Your task to perform on an android device: Open Chrome and go to the settings page Image 0: 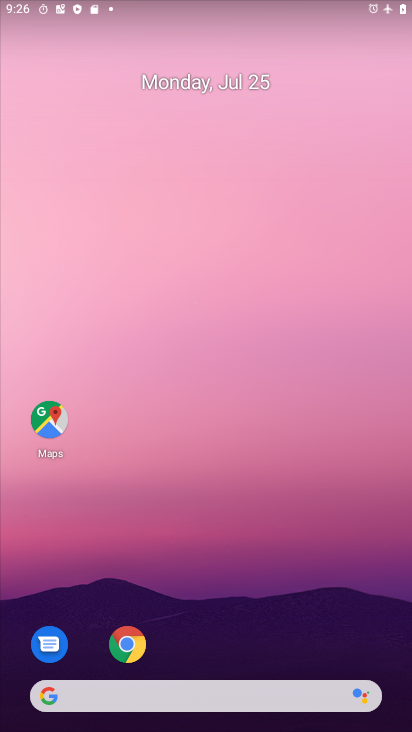
Step 0: drag from (229, 418) to (255, 94)
Your task to perform on an android device: Open Chrome and go to the settings page Image 1: 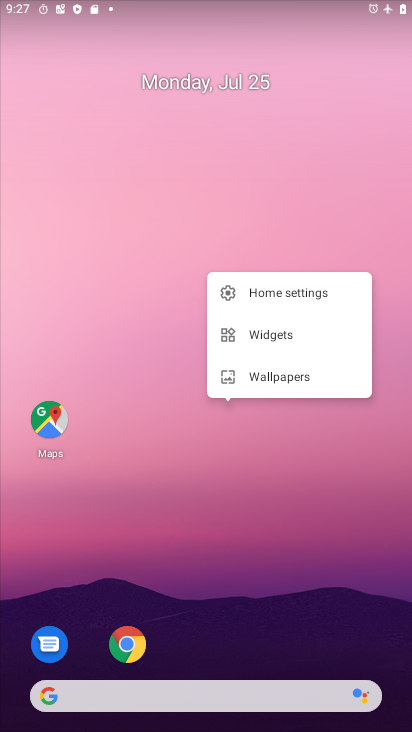
Step 1: drag from (220, 642) to (286, 29)
Your task to perform on an android device: Open Chrome and go to the settings page Image 2: 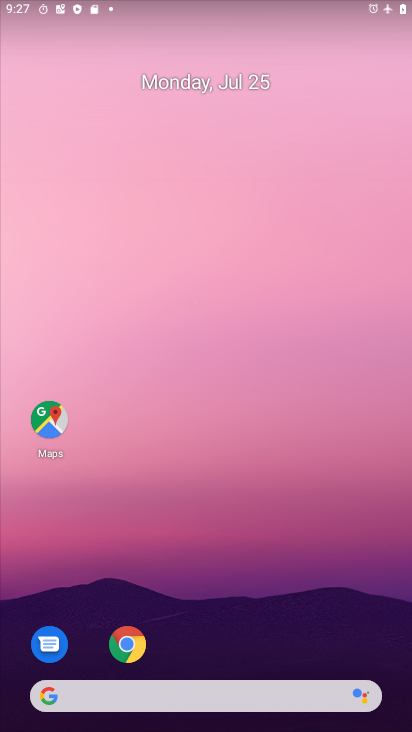
Step 2: drag from (153, 631) to (224, 20)
Your task to perform on an android device: Open Chrome and go to the settings page Image 3: 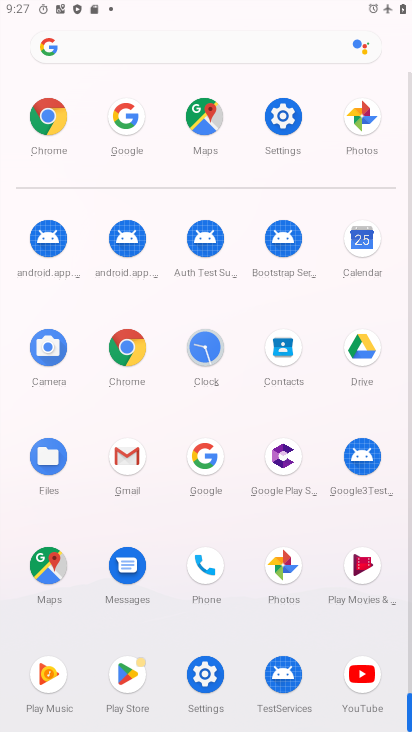
Step 3: click (130, 362)
Your task to perform on an android device: Open Chrome and go to the settings page Image 4: 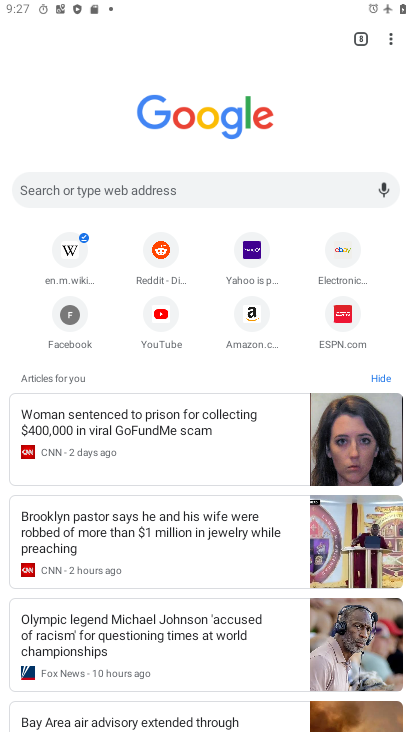
Step 4: click (395, 48)
Your task to perform on an android device: Open Chrome and go to the settings page Image 5: 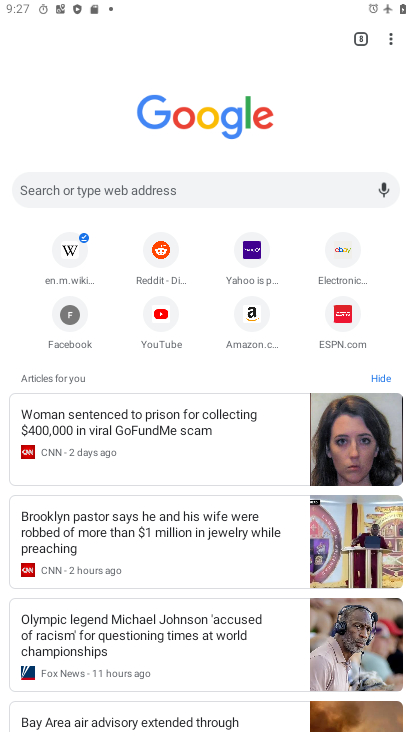
Step 5: click (387, 44)
Your task to perform on an android device: Open Chrome and go to the settings page Image 6: 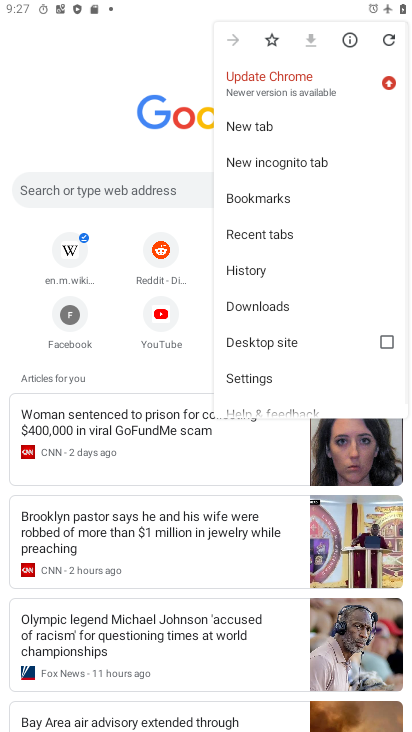
Step 6: click (241, 377)
Your task to perform on an android device: Open Chrome and go to the settings page Image 7: 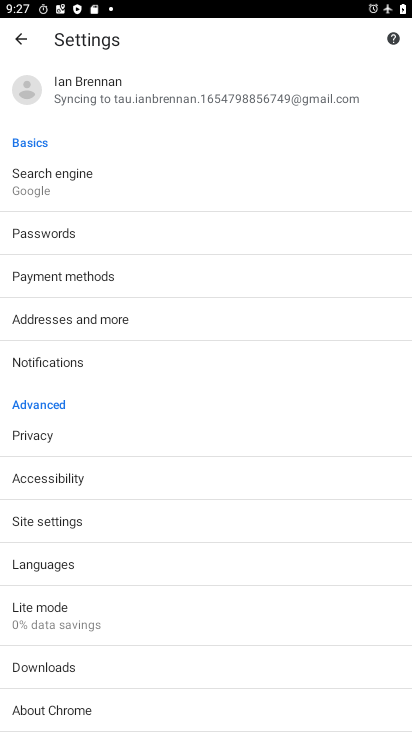
Step 7: task complete